Your task to perform on an android device: Check the news Image 0: 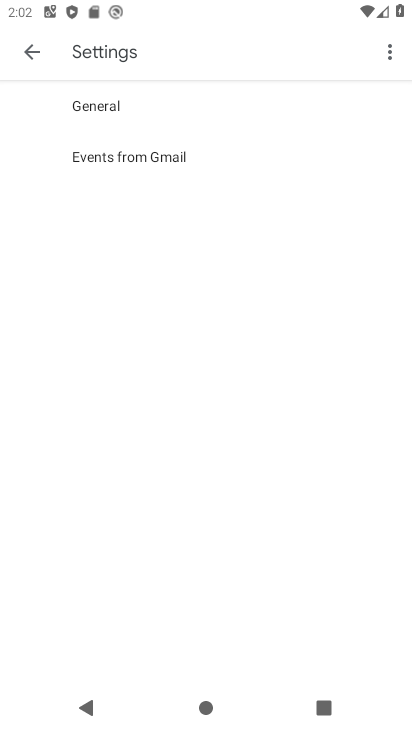
Step 0: press home button
Your task to perform on an android device: Check the news Image 1: 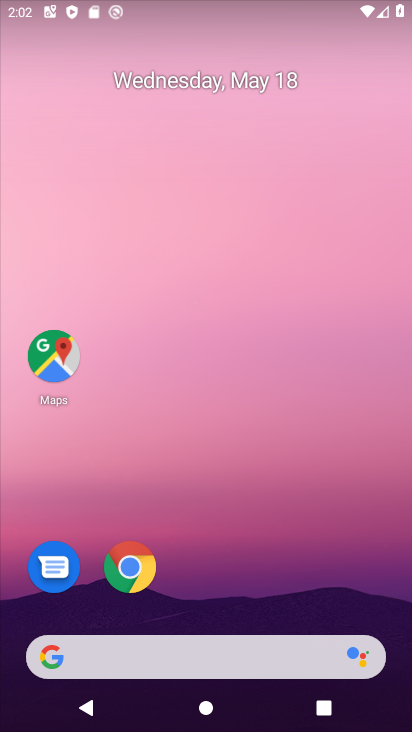
Step 1: click (263, 215)
Your task to perform on an android device: Check the news Image 2: 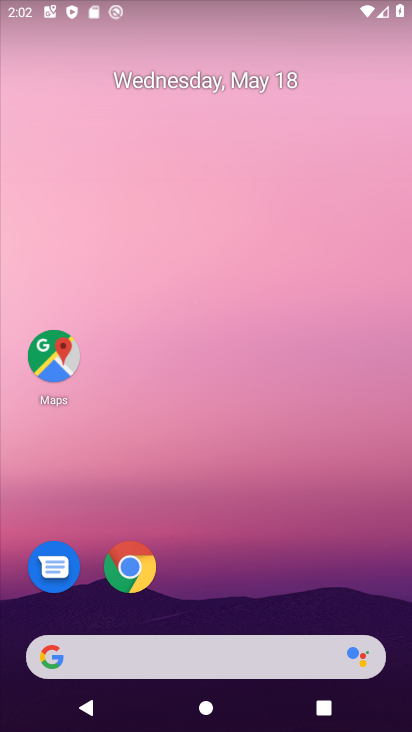
Step 2: drag from (237, 620) to (237, 331)
Your task to perform on an android device: Check the news Image 3: 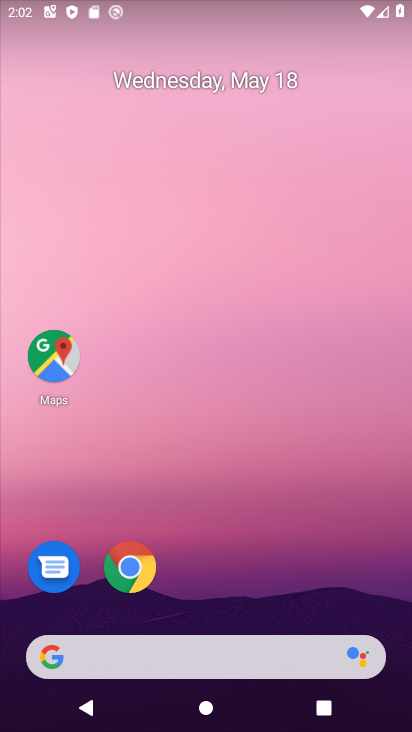
Step 3: click (221, 263)
Your task to perform on an android device: Check the news Image 4: 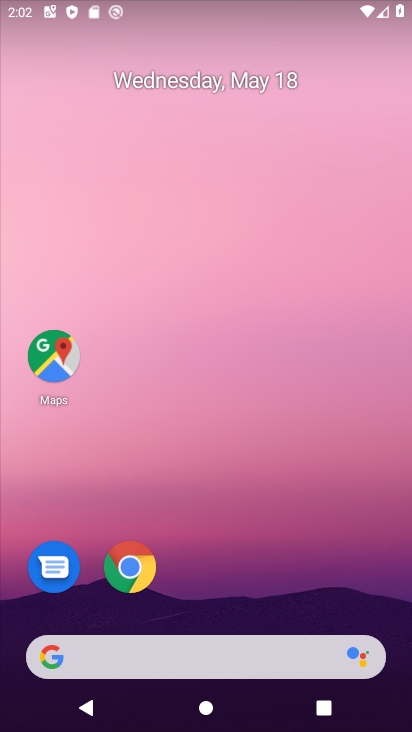
Step 4: drag from (193, 615) to (203, 246)
Your task to perform on an android device: Check the news Image 5: 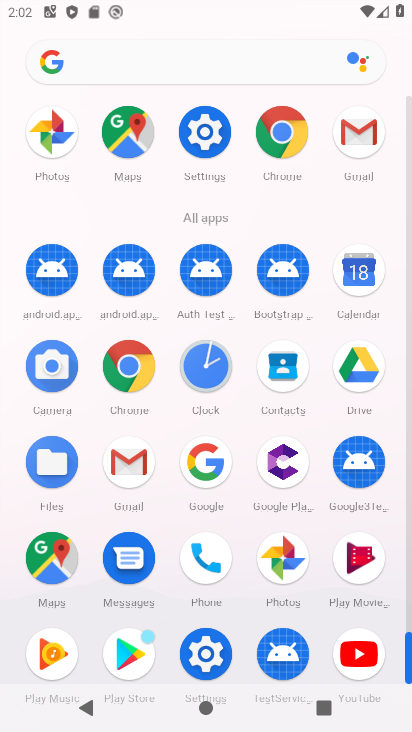
Step 5: click (262, 132)
Your task to perform on an android device: Check the news Image 6: 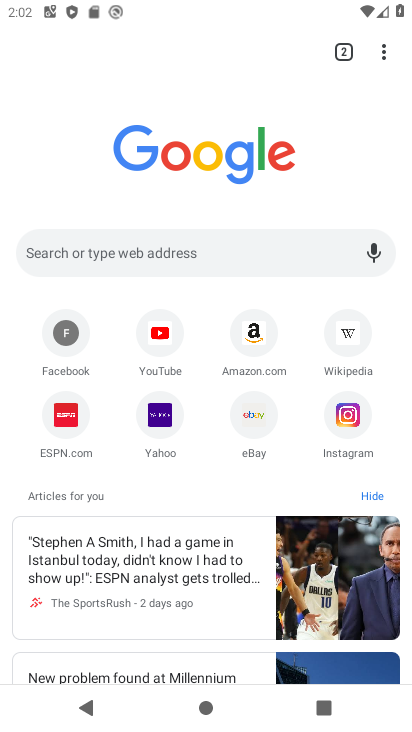
Step 6: click (224, 235)
Your task to perform on an android device: Check the news Image 7: 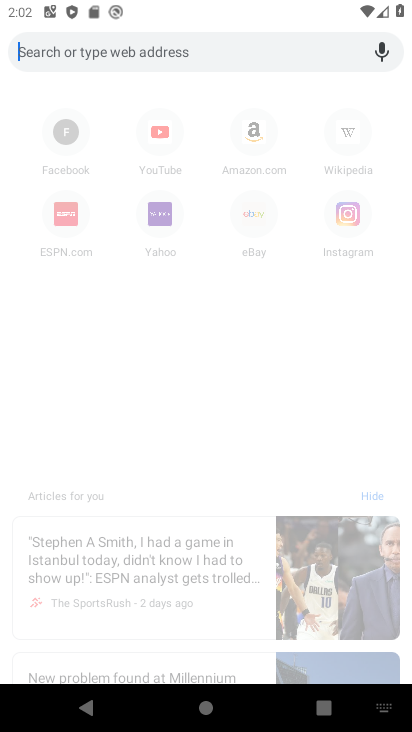
Step 7: type "Check the news"
Your task to perform on an android device: Check the news Image 8: 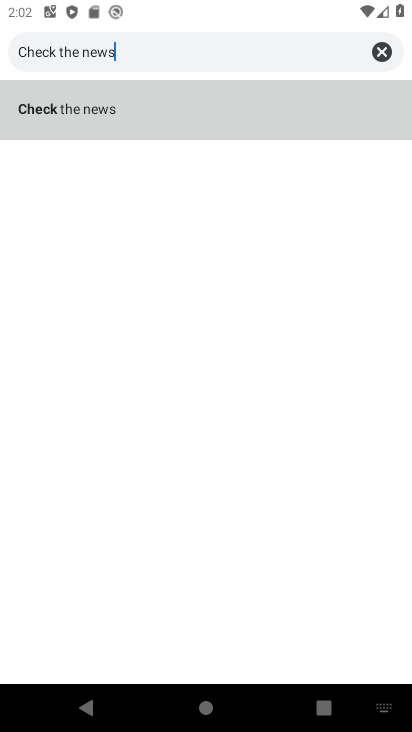
Step 8: click (238, 109)
Your task to perform on an android device: Check the news Image 9: 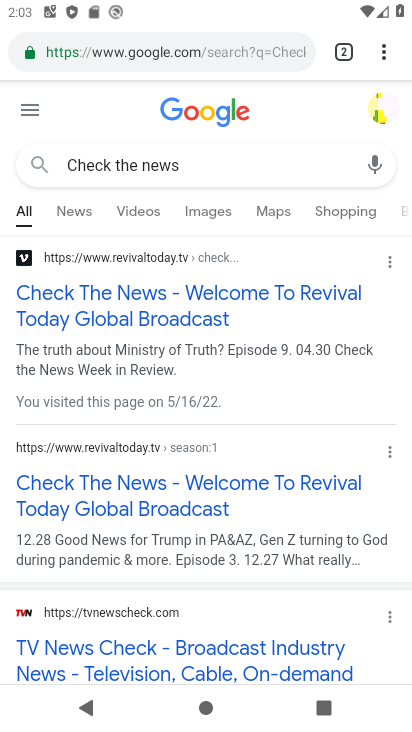
Step 9: task complete